Your task to perform on an android device: Open display settings Image 0: 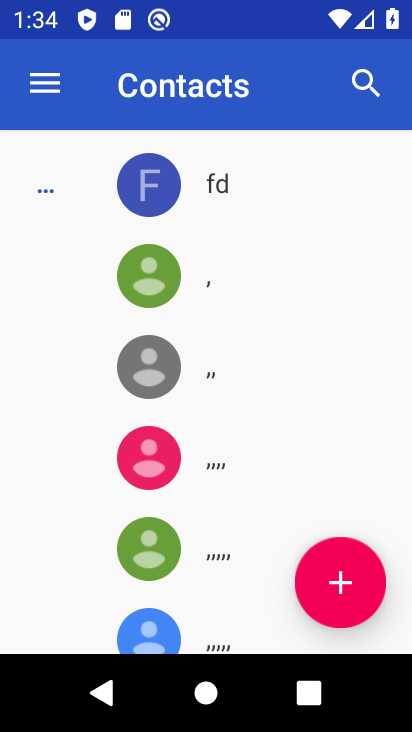
Step 0: press home button
Your task to perform on an android device: Open display settings Image 1: 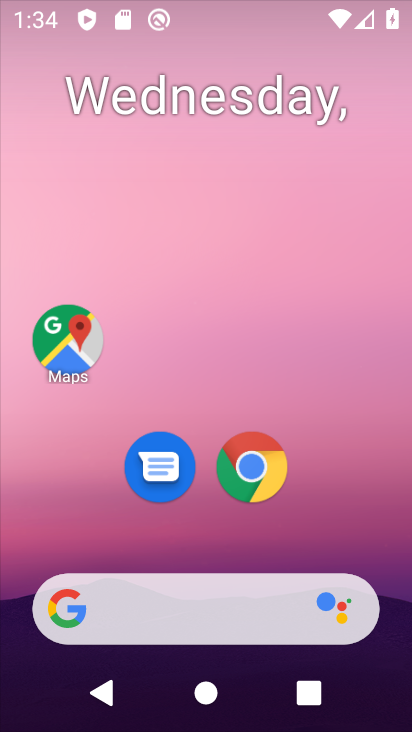
Step 1: drag from (281, 361) to (226, 55)
Your task to perform on an android device: Open display settings Image 2: 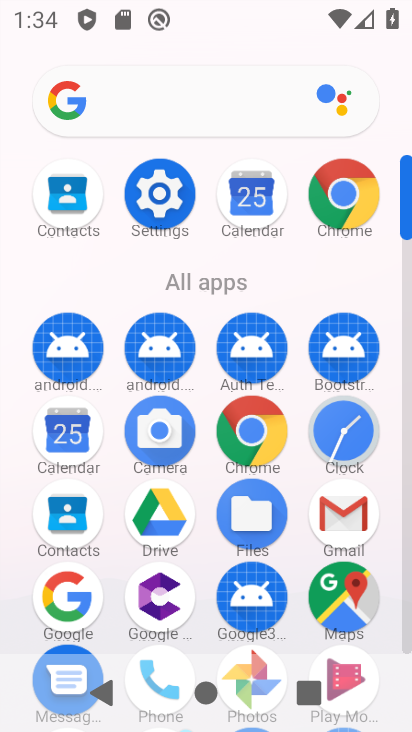
Step 2: click (158, 183)
Your task to perform on an android device: Open display settings Image 3: 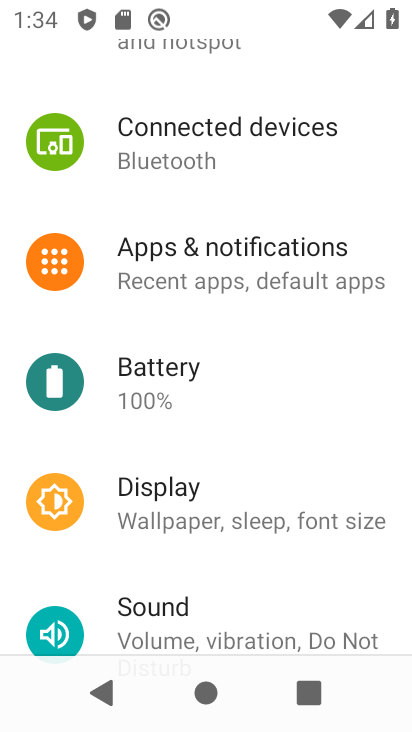
Step 3: click (262, 514)
Your task to perform on an android device: Open display settings Image 4: 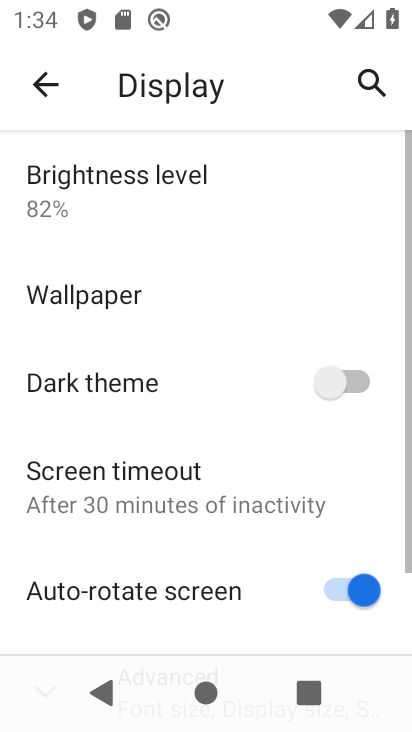
Step 4: task complete